Your task to perform on an android device: Open CNN.com Image 0: 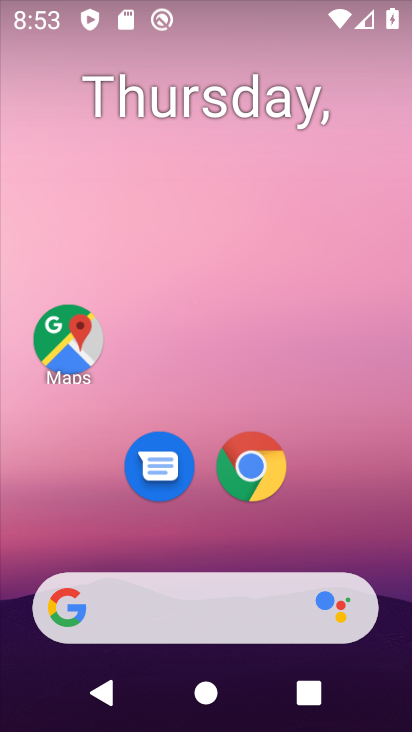
Step 0: press home button
Your task to perform on an android device: Open CNN.com Image 1: 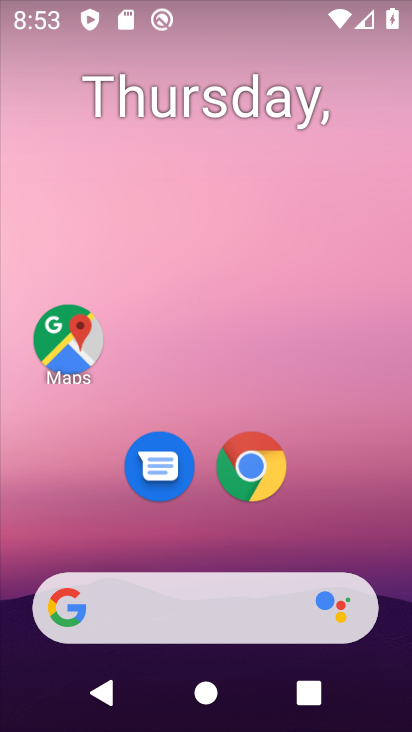
Step 1: click (246, 476)
Your task to perform on an android device: Open CNN.com Image 2: 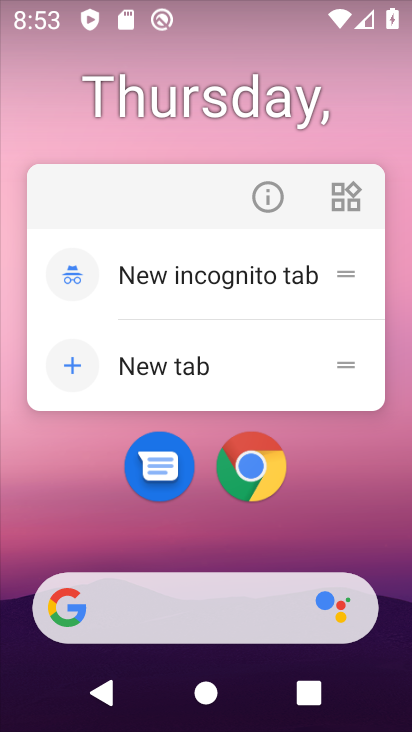
Step 2: click (257, 476)
Your task to perform on an android device: Open CNN.com Image 3: 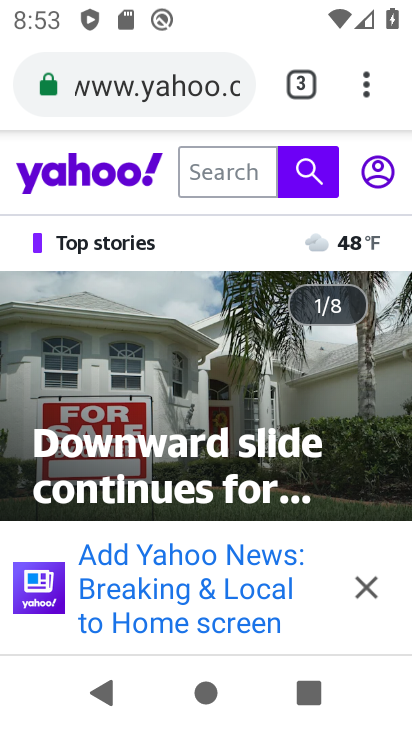
Step 3: drag from (364, 82) to (245, 164)
Your task to perform on an android device: Open CNN.com Image 4: 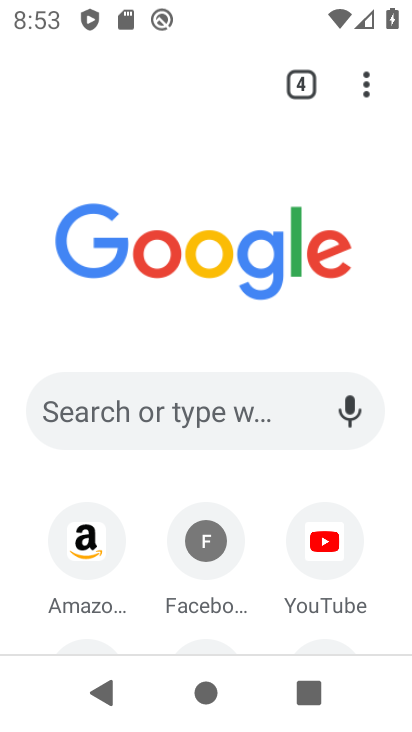
Step 4: drag from (258, 490) to (215, 382)
Your task to perform on an android device: Open CNN.com Image 5: 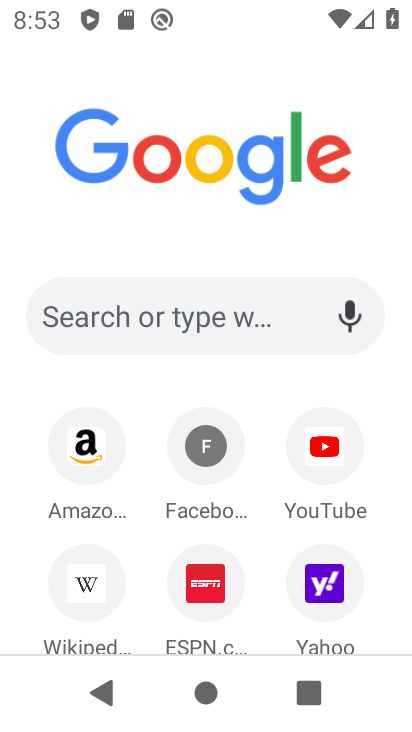
Step 5: click (154, 314)
Your task to perform on an android device: Open CNN.com Image 6: 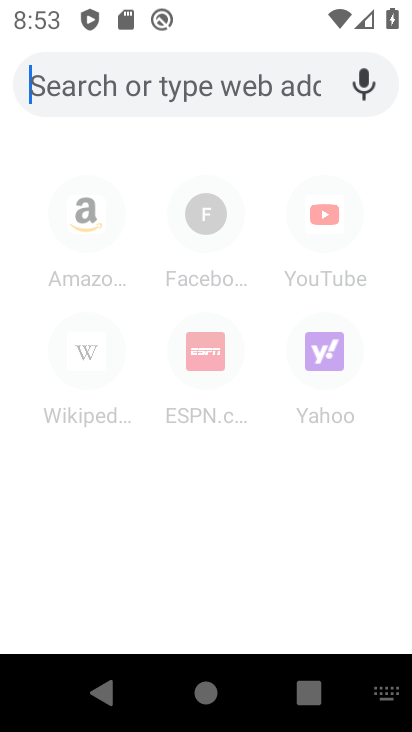
Step 6: type "cnn.com"
Your task to perform on an android device: Open CNN.com Image 7: 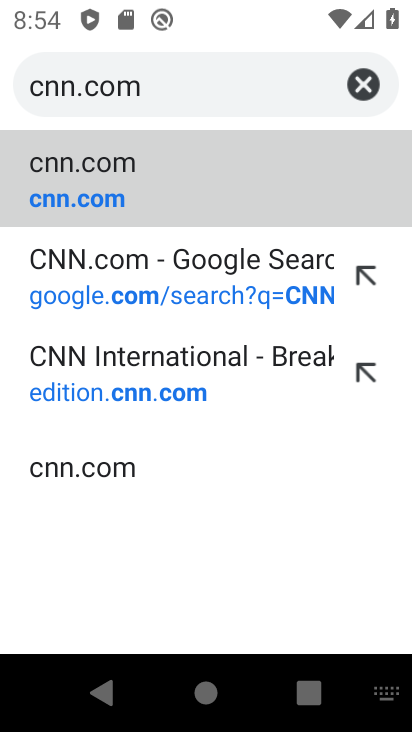
Step 7: click (124, 181)
Your task to perform on an android device: Open CNN.com Image 8: 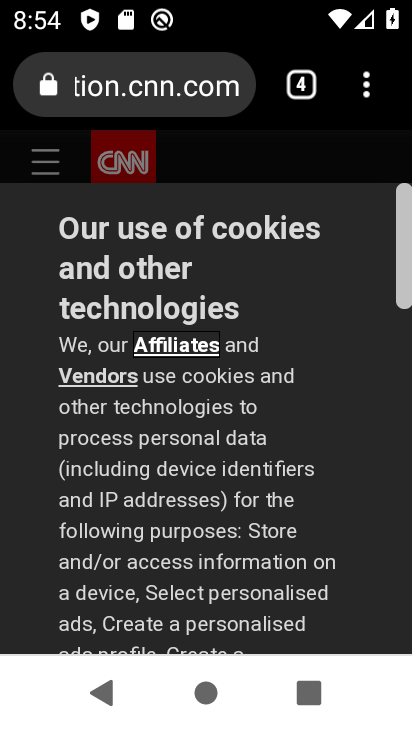
Step 8: drag from (285, 616) to (359, 151)
Your task to perform on an android device: Open CNN.com Image 9: 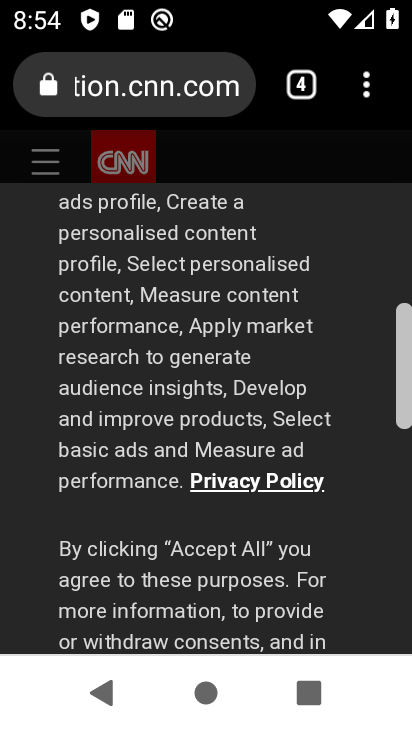
Step 9: drag from (293, 578) to (369, 215)
Your task to perform on an android device: Open CNN.com Image 10: 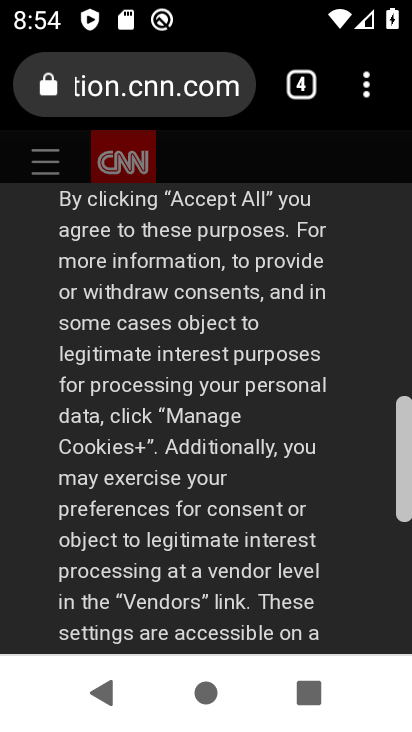
Step 10: drag from (278, 625) to (371, 226)
Your task to perform on an android device: Open CNN.com Image 11: 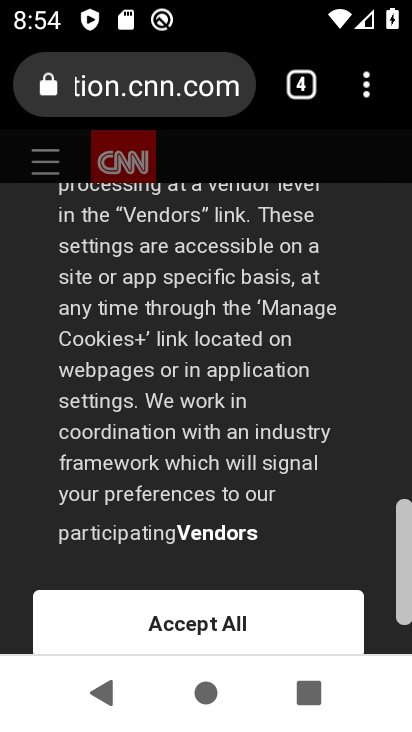
Step 11: click (237, 624)
Your task to perform on an android device: Open CNN.com Image 12: 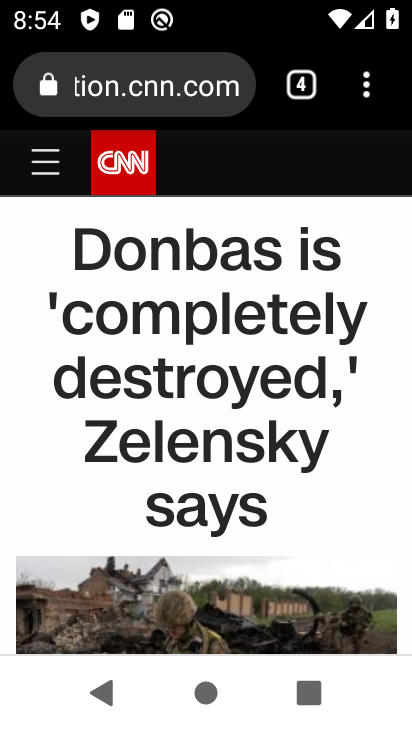
Step 12: task complete